Your task to perform on an android device: turn on priority inbox in the gmail app Image 0: 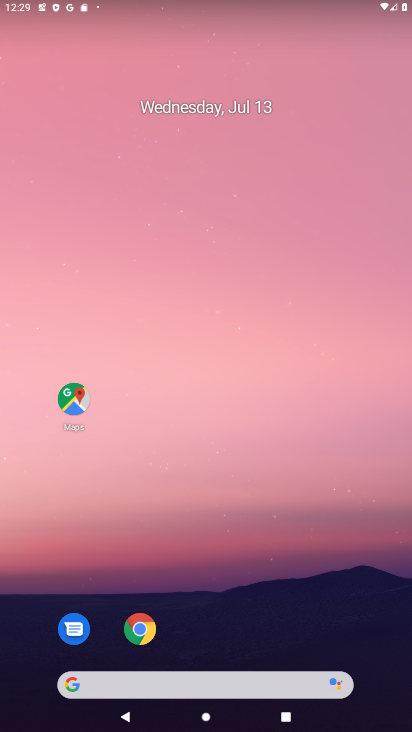
Step 0: drag from (199, 596) to (188, 143)
Your task to perform on an android device: turn on priority inbox in the gmail app Image 1: 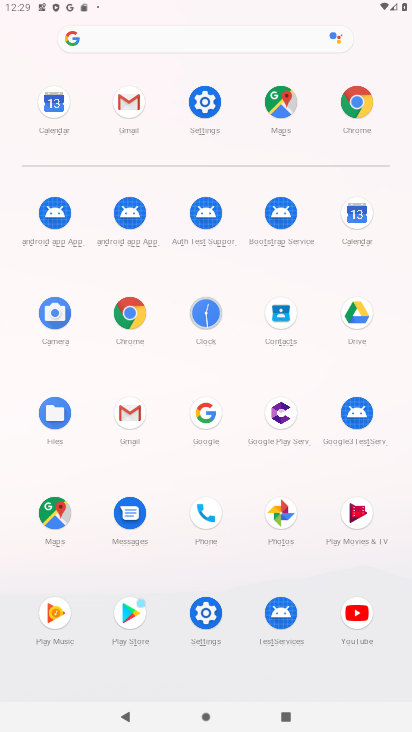
Step 1: click (122, 99)
Your task to perform on an android device: turn on priority inbox in the gmail app Image 2: 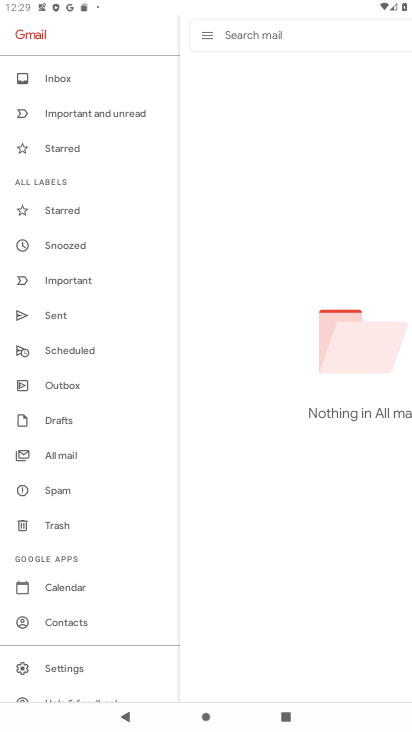
Step 2: click (50, 664)
Your task to perform on an android device: turn on priority inbox in the gmail app Image 3: 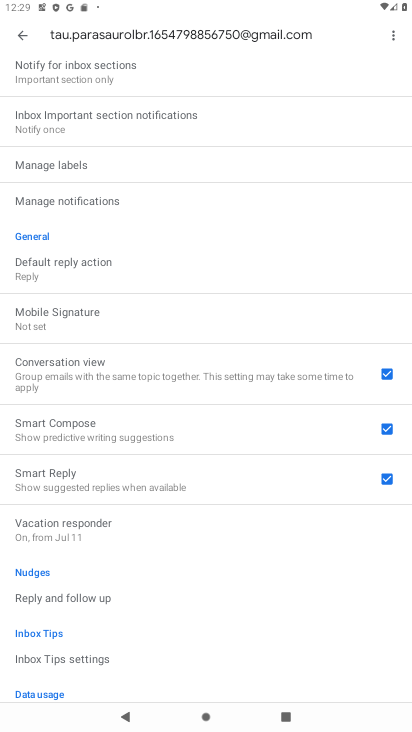
Step 3: drag from (109, 99) to (111, 511)
Your task to perform on an android device: turn on priority inbox in the gmail app Image 4: 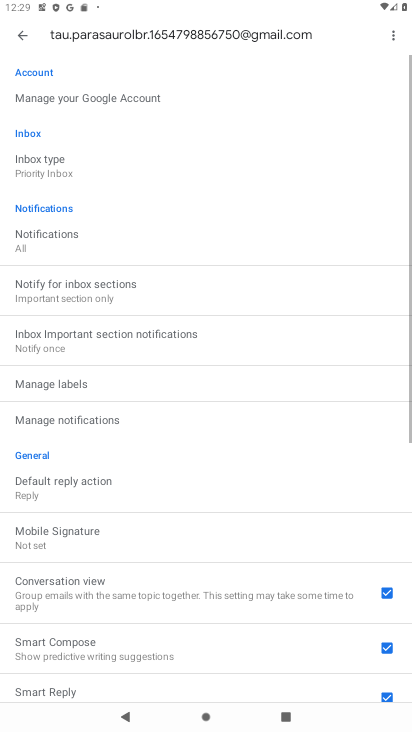
Step 4: click (51, 157)
Your task to perform on an android device: turn on priority inbox in the gmail app Image 5: 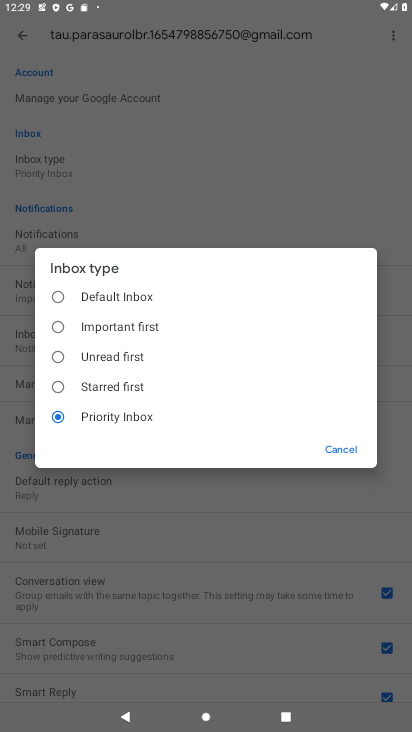
Step 5: task complete